Your task to perform on an android device: What is the capital of Canada? Image 0: 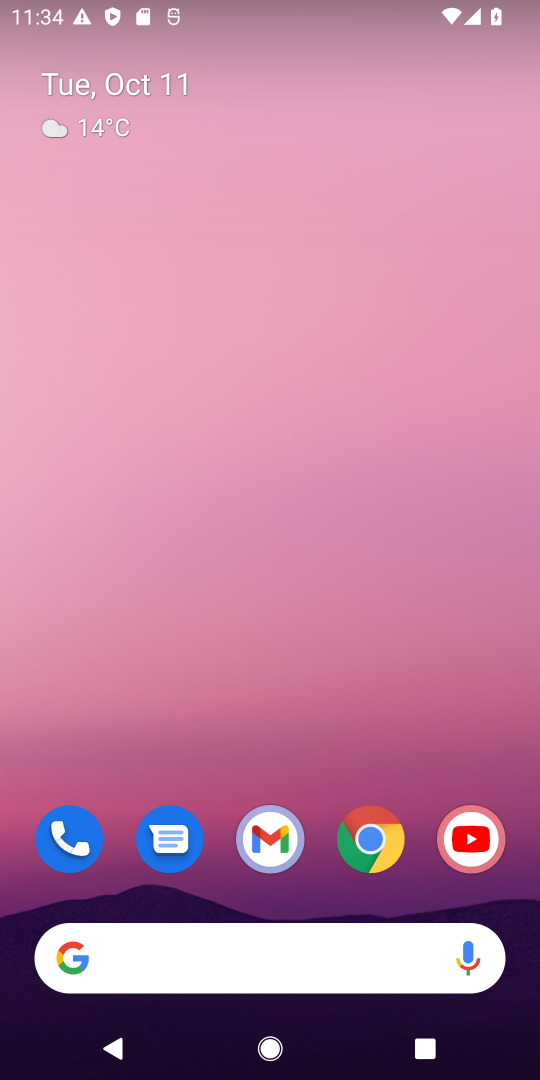
Step 0: press home button
Your task to perform on an android device: What is the capital of Canada? Image 1: 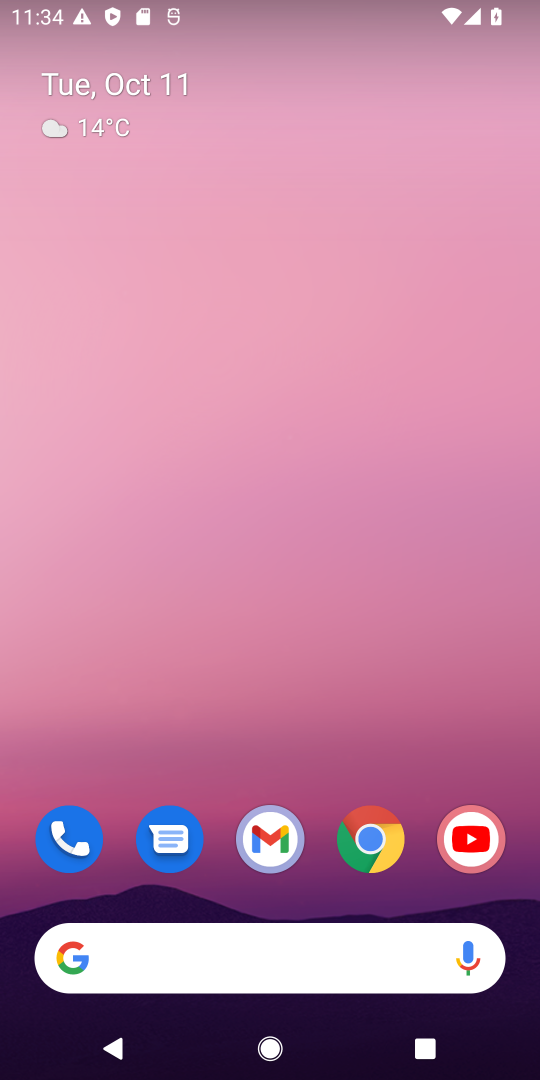
Step 1: click (365, 840)
Your task to perform on an android device: What is the capital of Canada? Image 2: 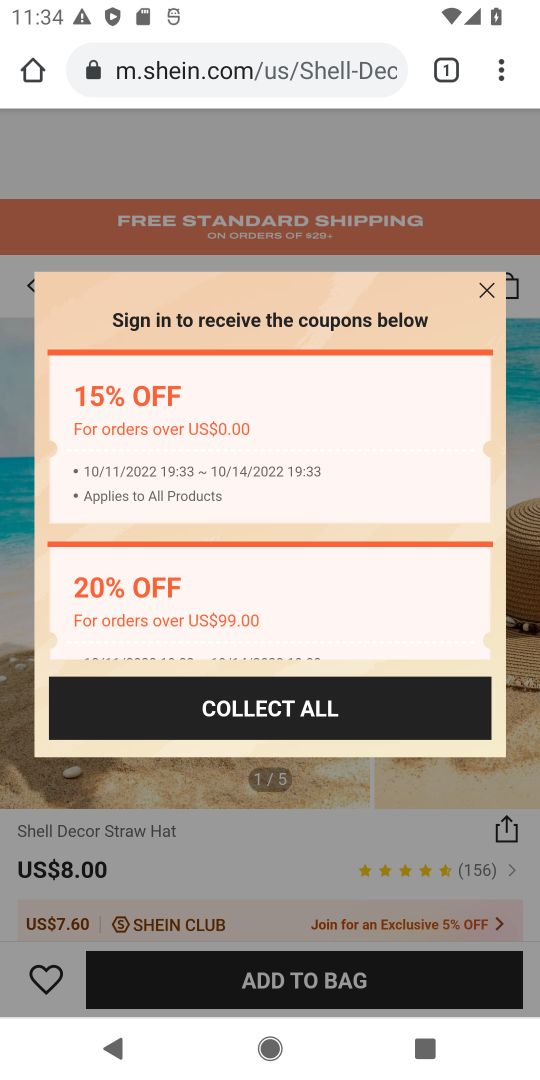
Step 2: click (299, 69)
Your task to perform on an android device: What is the capital of Canada? Image 3: 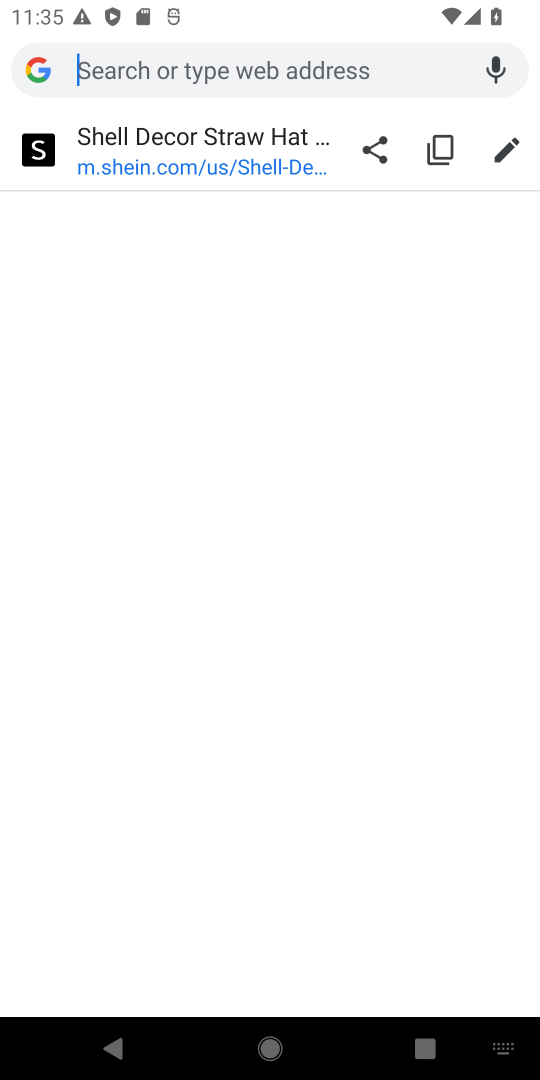
Step 3: type "capital of Canada"
Your task to perform on an android device: What is the capital of Canada? Image 4: 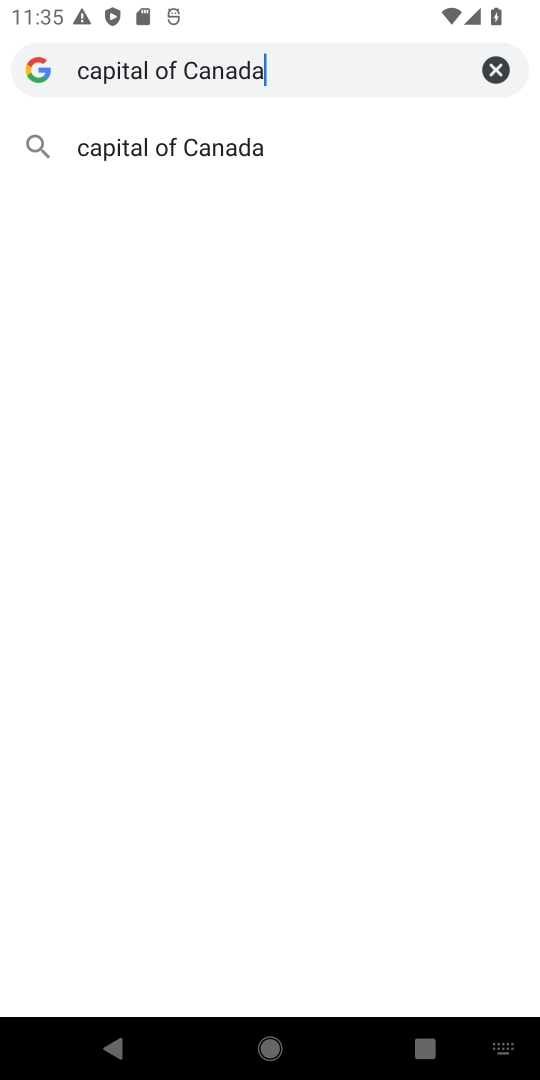
Step 4: click (160, 139)
Your task to perform on an android device: What is the capital of Canada? Image 5: 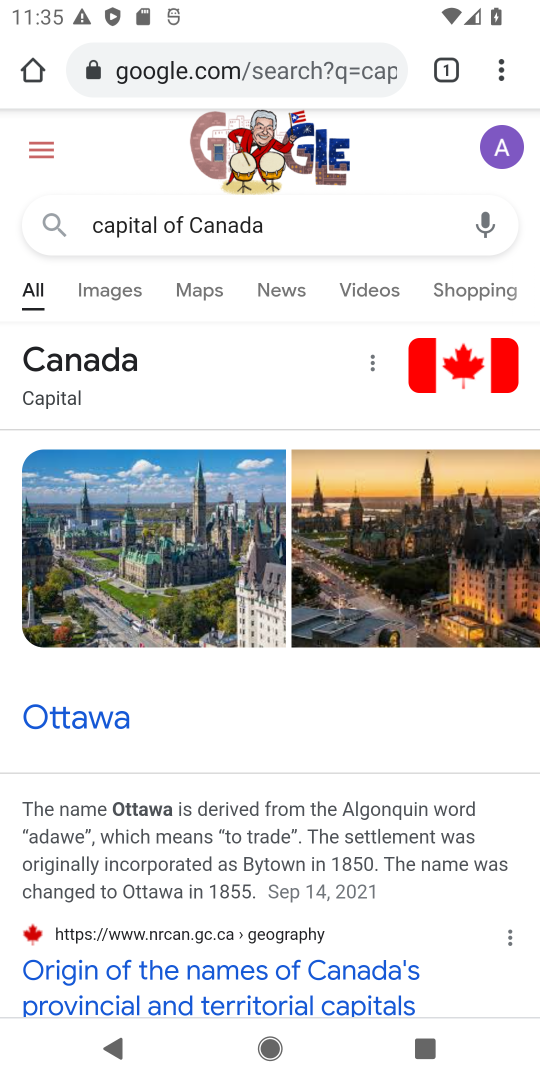
Step 5: task complete